Your task to perform on an android device: empty trash in the gmail app Image 0: 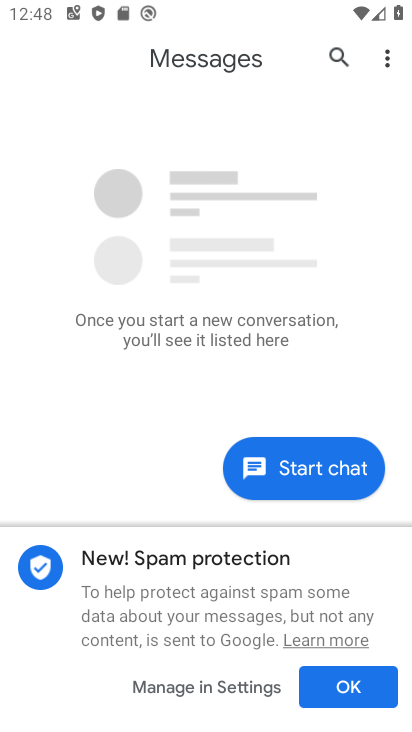
Step 0: press home button
Your task to perform on an android device: empty trash in the gmail app Image 1: 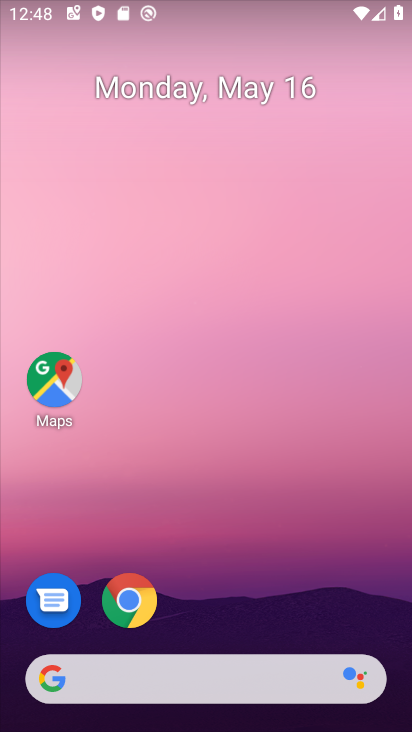
Step 1: drag from (291, 591) to (327, 217)
Your task to perform on an android device: empty trash in the gmail app Image 2: 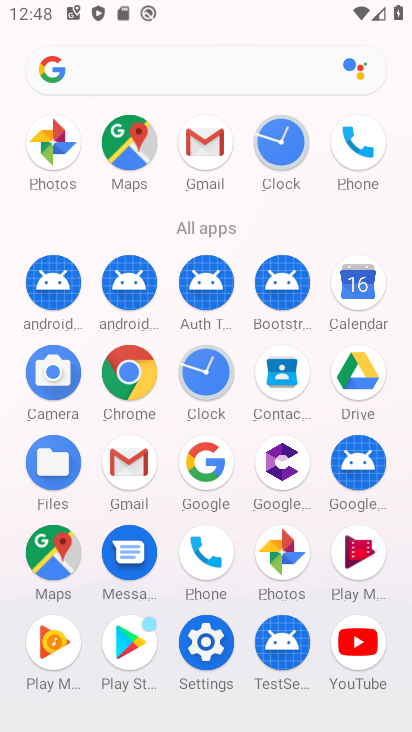
Step 2: click (138, 463)
Your task to perform on an android device: empty trash in the gmail app Image 3: 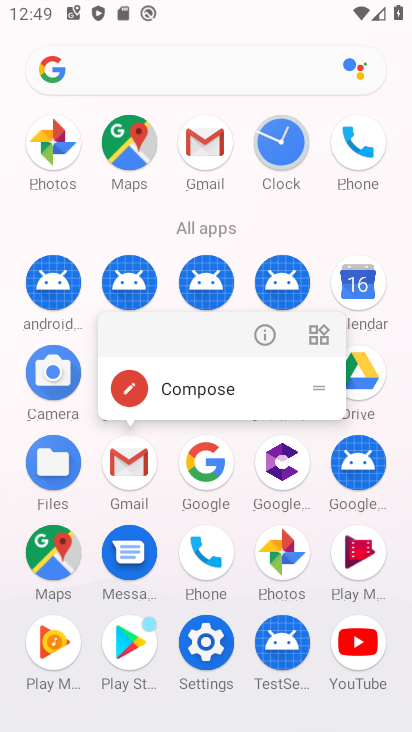
Step 3: click (133, 484)
Your task to perform on an android device: empty trash in the gmail app Image 4: 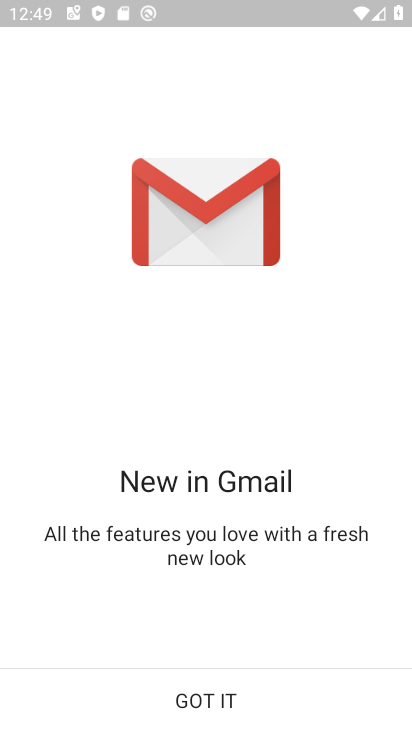
Step 4: click (173, 709)
Your task to perform on an android device: empty trash in the gmail app Image 5: 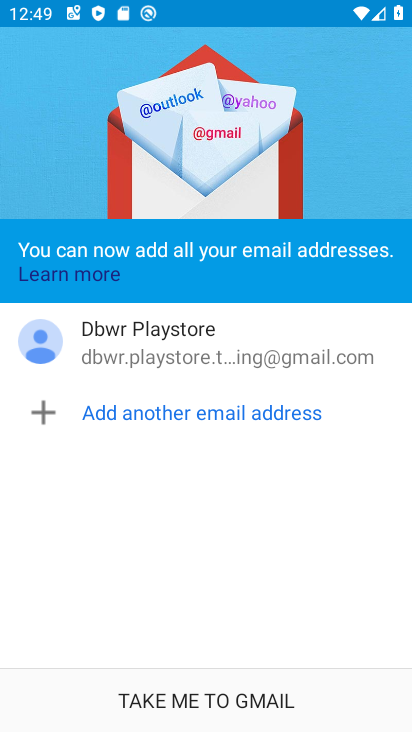
Step 5: click (253, 703)
Your task to perform on an android device: empty trash in the gmail app Image 6: 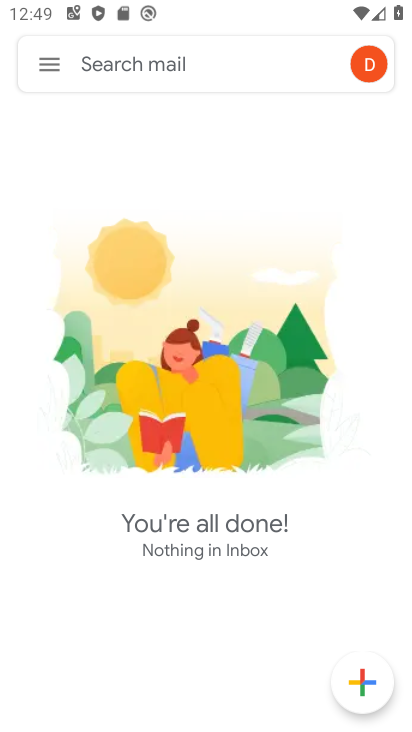
Step 6: click (46, 64)
Your task to perform on an android device: empty trash in the gmail app Image 7: 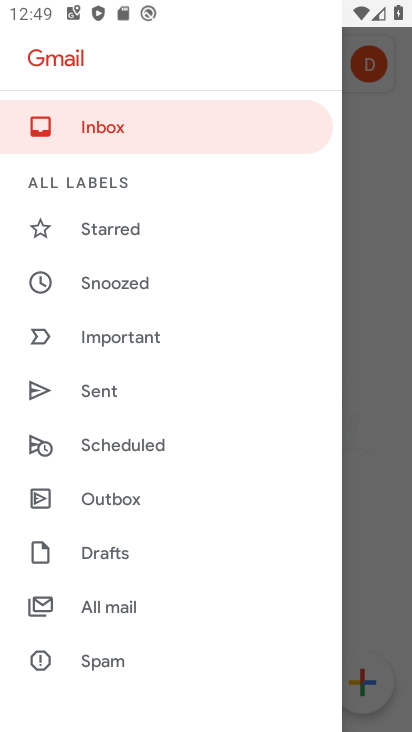
Step 7: drag from (132, 640) to (159, 400)
Your task to perform on an android device: empty trash in the gmail app Image 8: 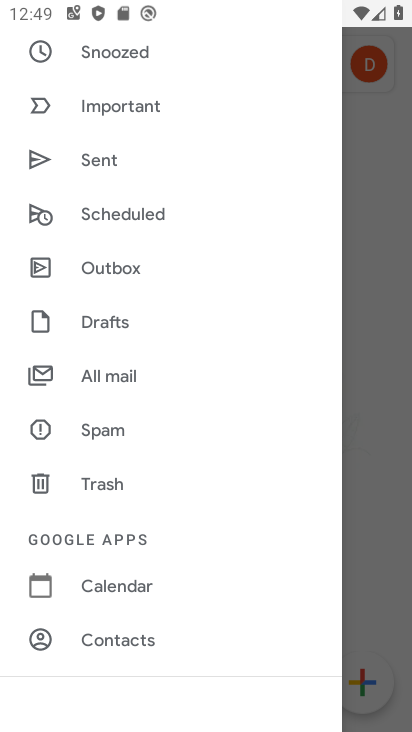
Step 8: click (127, 486)
Your task to perform on an android device: empty trash in the gmail app Image 9: 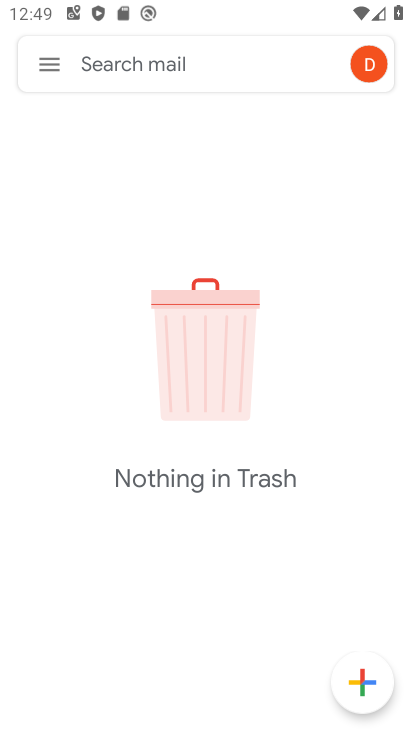
Step 9: task complete